Your task to perform on an android device: What is the recent news? Image 0: 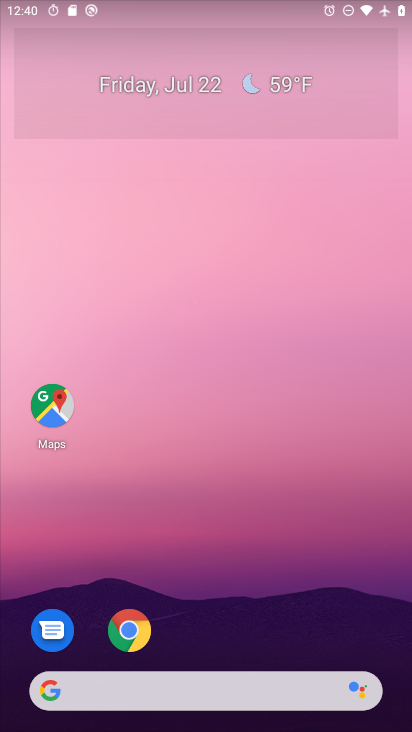
Step 0: press home button
Your task to perform on an android device: What is the recent news? Image 1: 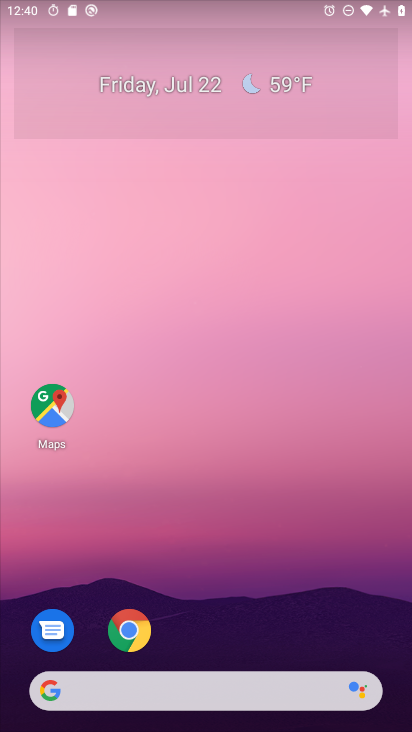
Step 1: click (60, 683)
Your task to perform on an android device: What is the recent news? Image 2: 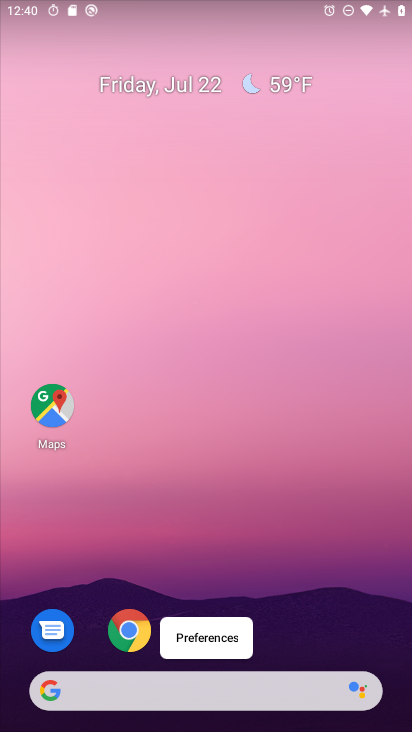
Step 2: click (44, 690)
Your task to perform on an android device: What is the recent news? Image 3: 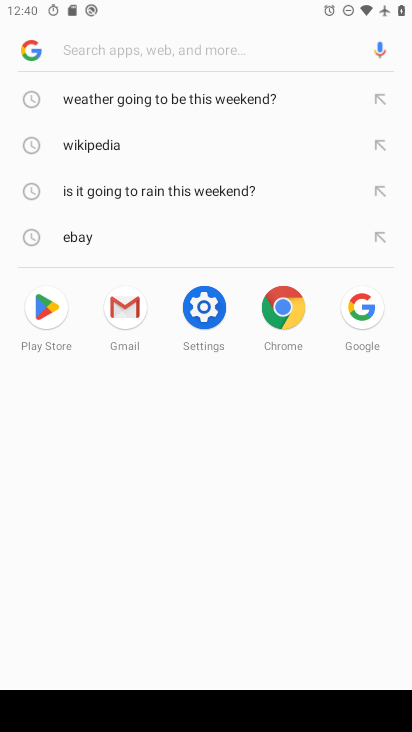
Step 3: type "recent news?"
Your task to perform on an android device: What is the recent news? Image 4: 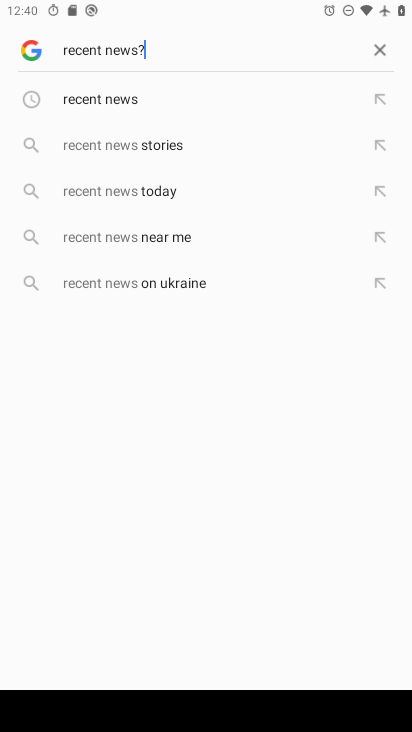
Step 4: press enter
Your task to perform on an android device: What is the recent news? Image 5: 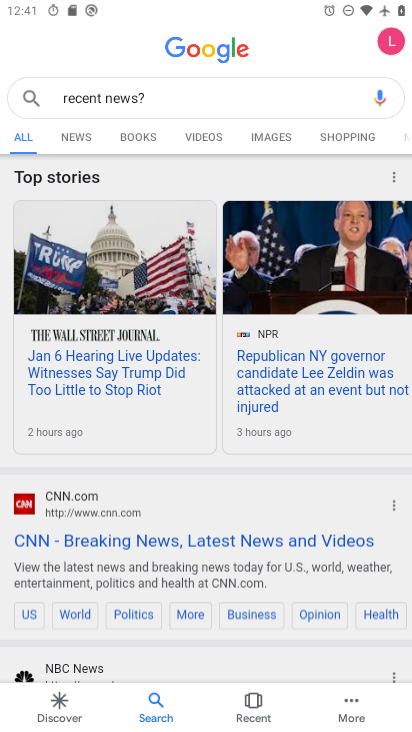
Step 5: task complete